Your task to perform on an android device: Go to Maps Image 0: 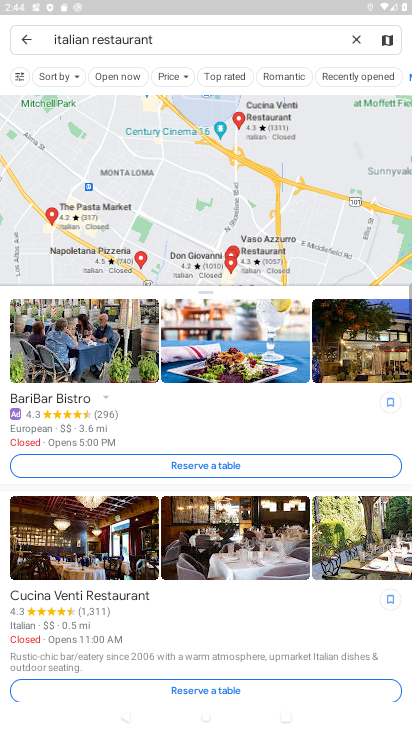
Step 0: task complete